Your task to perform on an android device: add a contact Image 0: 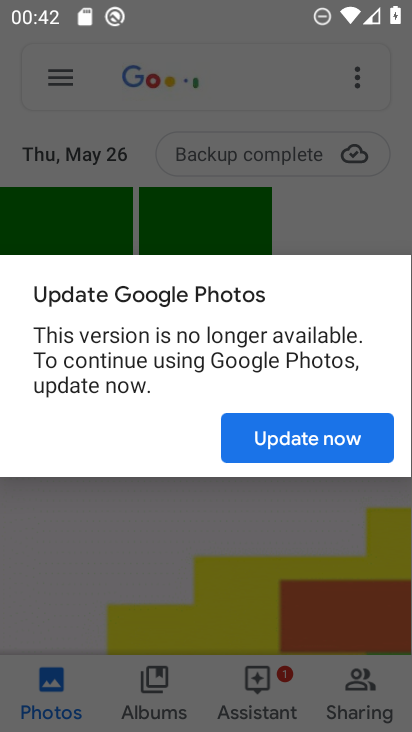
Step 0: press home button
Your task to perform on an android device: add a contact Image 1: 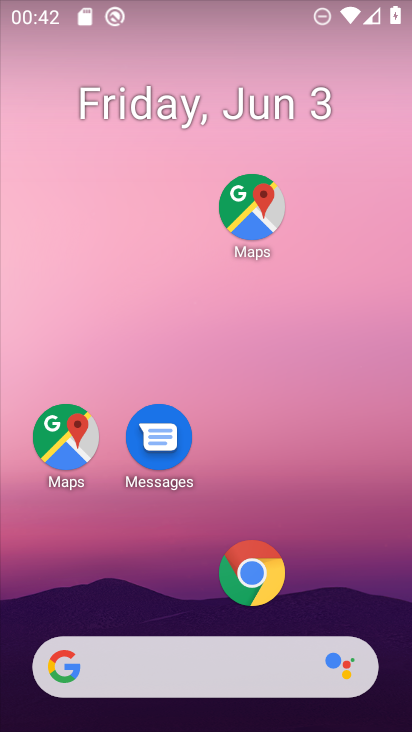
Step 1: drag from (317, 565) to (230, 142)
Your task to perform on an android device: add a contact Image 2: 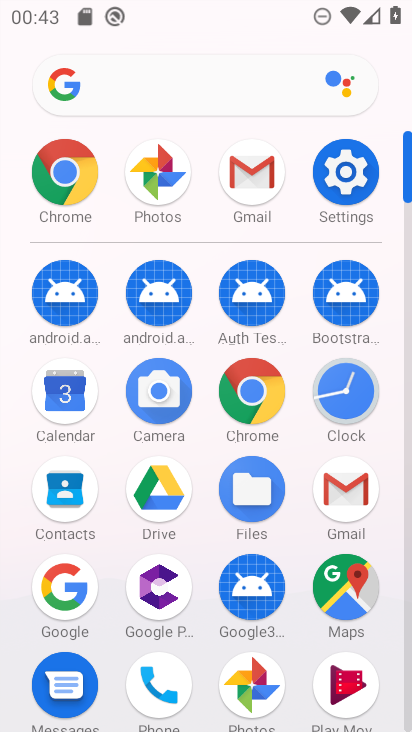
Step 2: click (66, 497)
Your task to perform on an android device: add a contact Image 3: 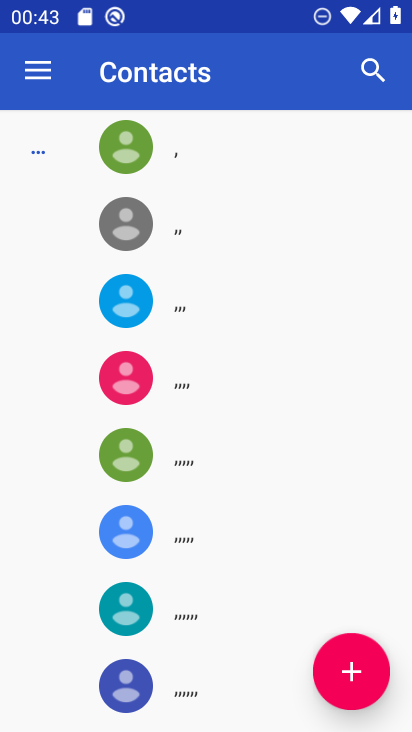
Step 3: click (344, 670)
Your task to perform on an android device: add a contact Image 4: 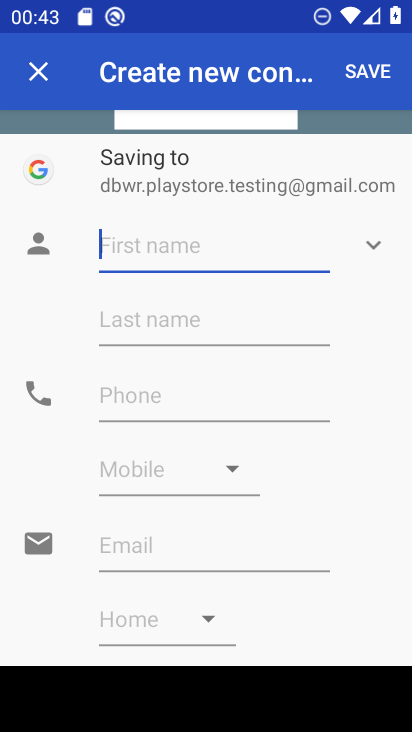
Step 4: type "ghhfhf"
Your task to perform on an android device: add a contact Image 5: 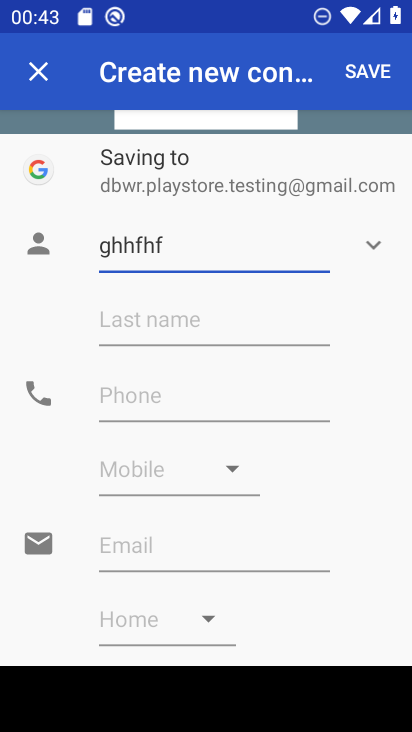
Step 5: click (153, 407)
Your task to perform on an android device: add a contact Image 6: 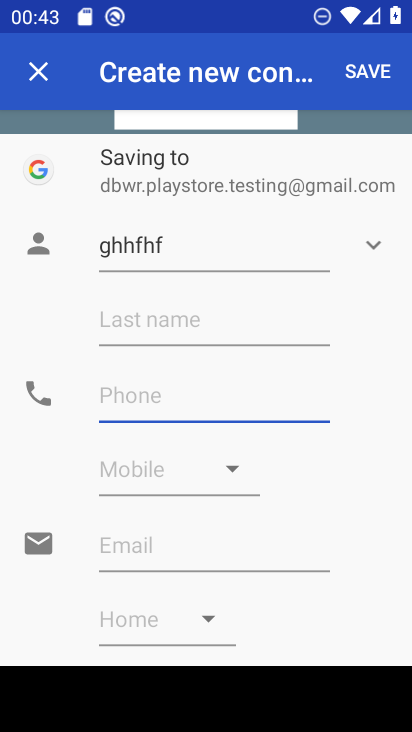
Step 6: type "564656855"
Your task to perform on an android device: add a contact Image 7: 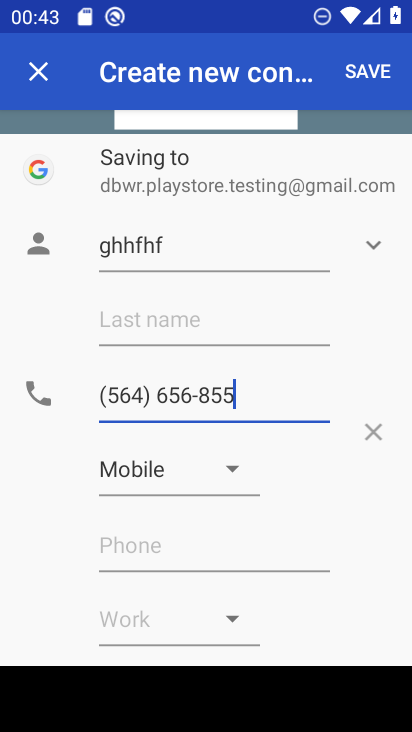
Step 7: click (371, 72)
Your task to perform on an android device: add a contact Image 8: 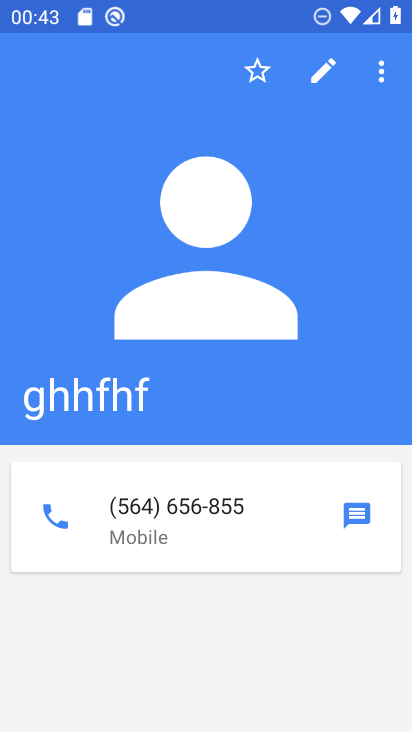
Step 8: task complete